Your task to perform on an android device: Open display settings Image 0: 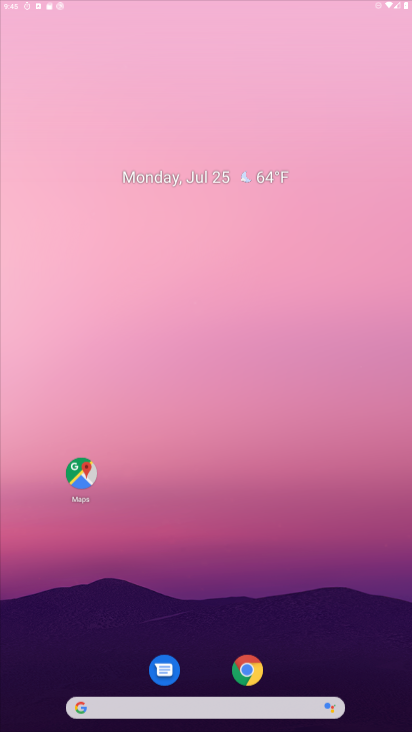
Step 0: click (243, 41)
Your task to perform on an android device: Open display settings Image 1: 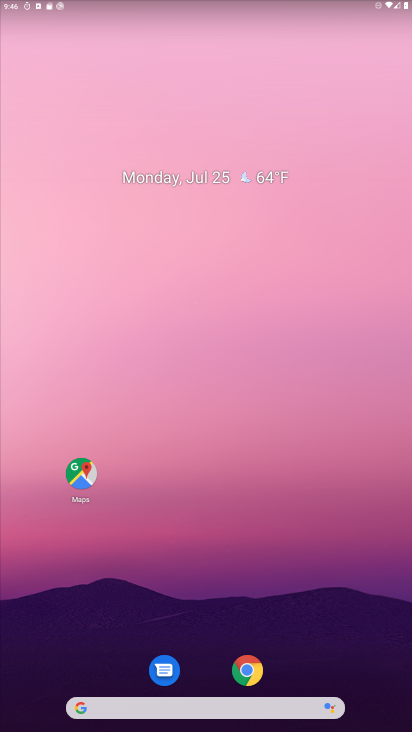
Step 1: drag from (316, 604) to (214, 50)
Your task to perform on an android device: Open display settings Image 2: 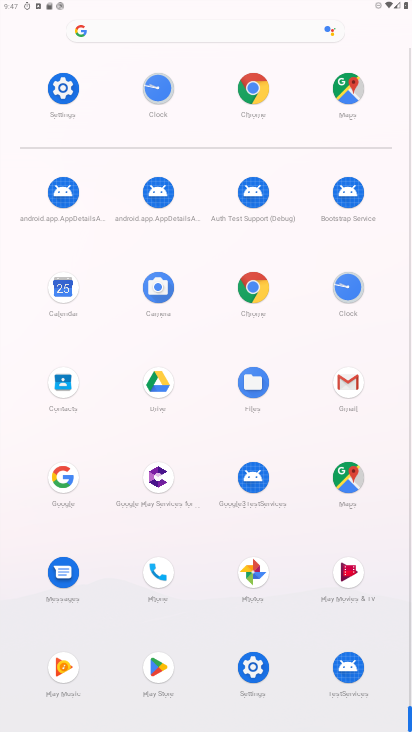
Step 2: click (254, 677)
Your task to perform on an android device: Open display settings Image 3: 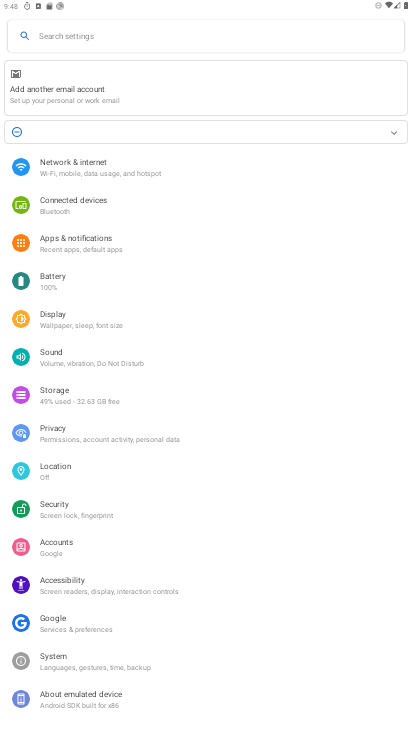
Step 3: click (87, 326)
Your task to perform on an android device: Open display settings Image 4: 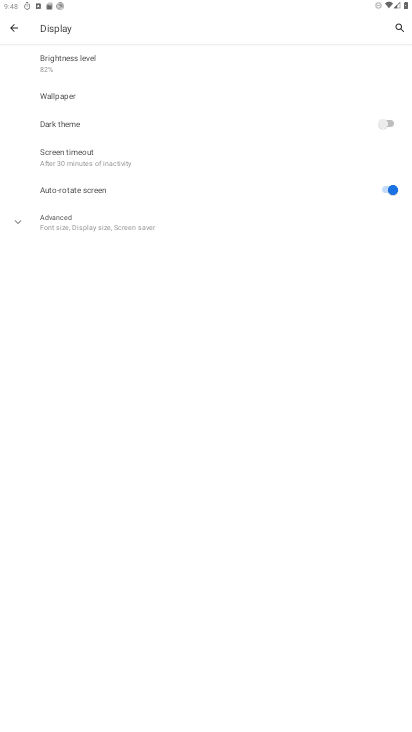
Step 4: task complete